Your task to perform on an android device: set the timer Image 0: 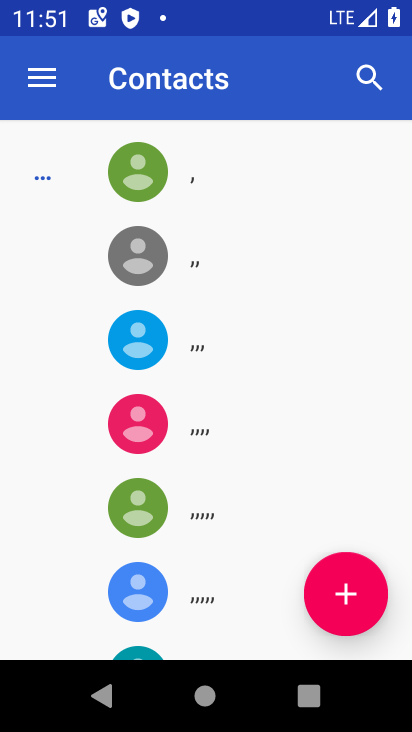
Step 0: press home button
Your task to perform on an android device: set the timer Image 1: 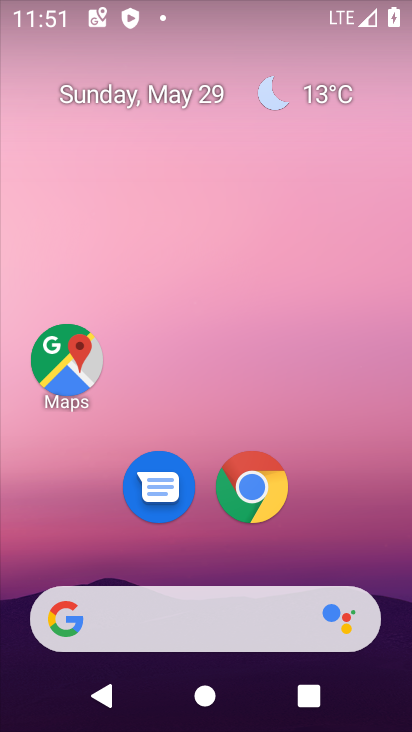
Step 1: drag from (363, 562) to (335, 177)
Your task to perform on an android device: set the timer Image 2: 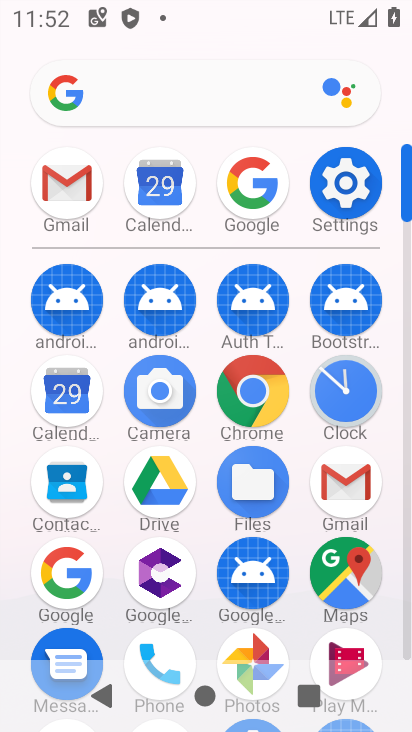
Step 2: click (358, 403)
Your task to perform on an android device: set the timer Image 3: 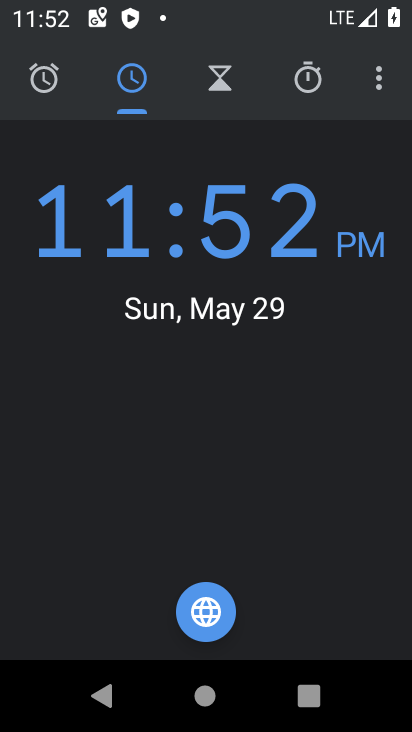
Step 3: click (204, 78)
Your task to perform on an android device: set the timer Image 4: 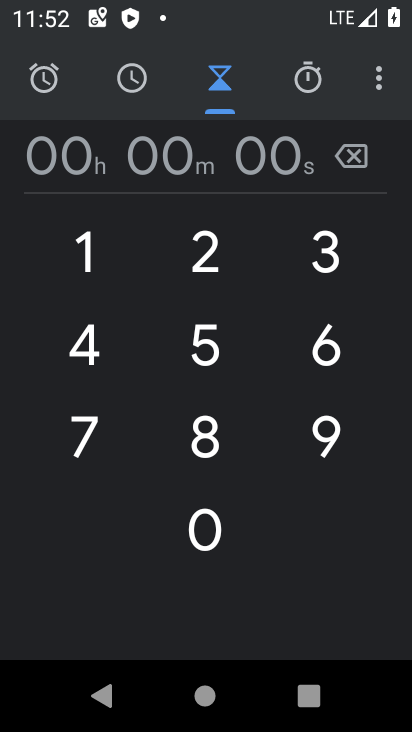
Step 4: click (263, 260)
Your task to perform on an android device: set the timer Image 5: 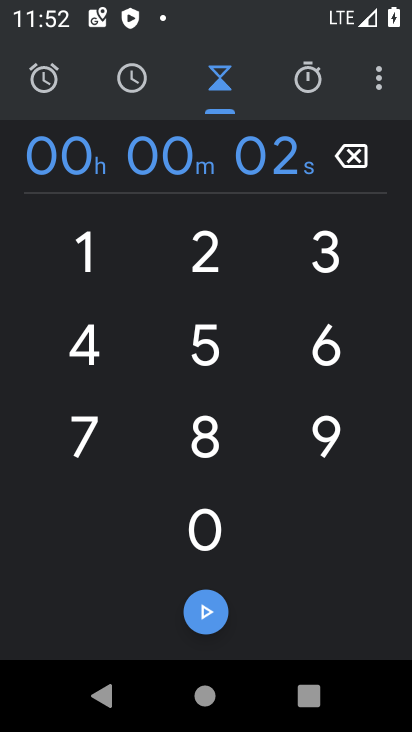
Step 5: click (229, 338)
Your task to perform on an android device: set the timer Image 6: 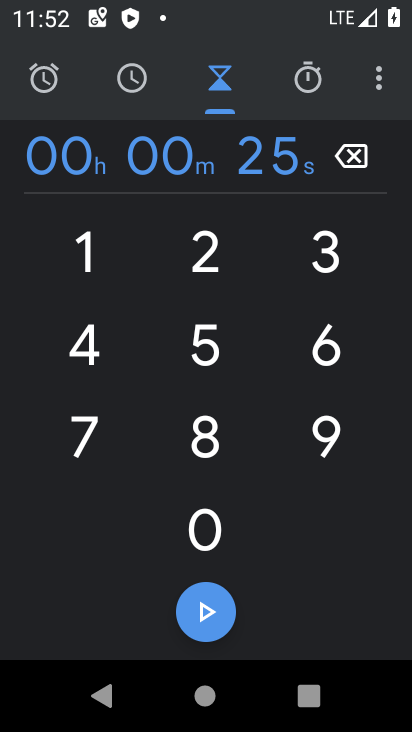
Step 6: task complete